Your task to perform on an android device: create a new album in the google photos Image 0: 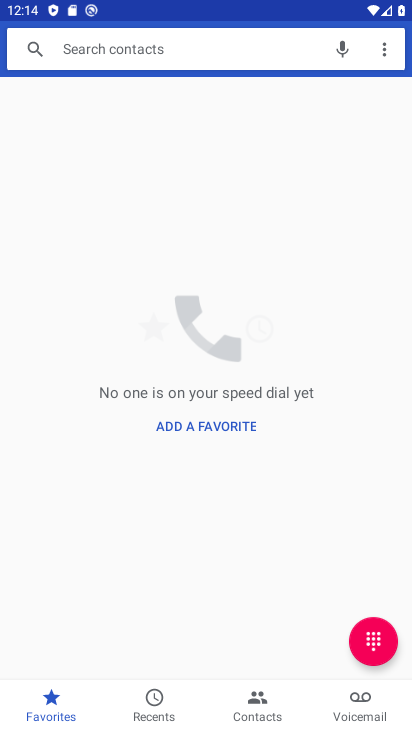
Step 0: press home button
Your task to perform on an android device: create a new album in the google photos Image 1: 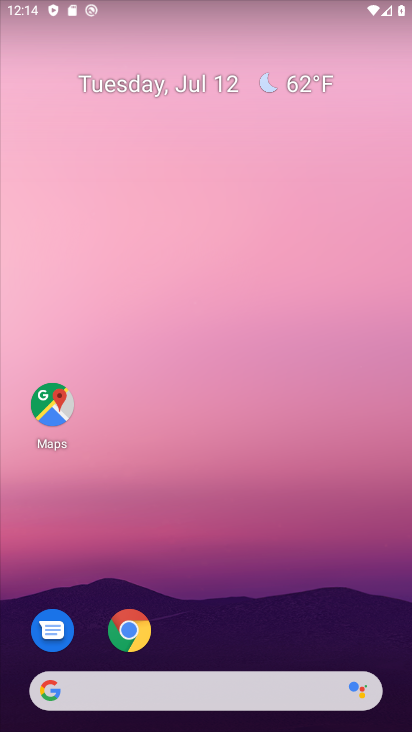
Step 1: drag from (281, 580) to (234, 150)
Your task to perform on an android device: create a new album in the google photos Image 2: 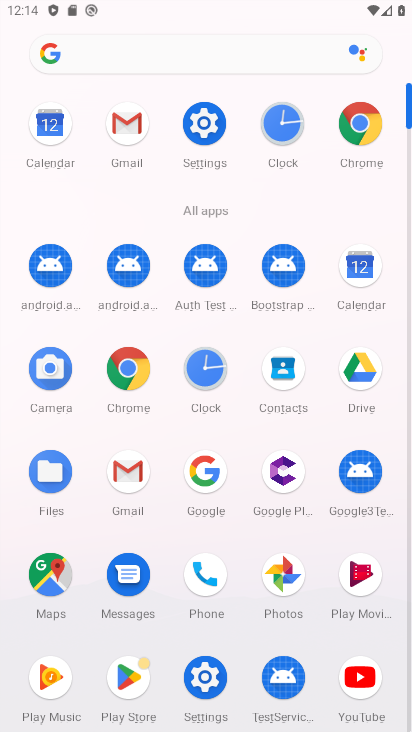
Step 2: click (275, 581)
Your task to perform on an android device: create a new album in the google photos Image 3: 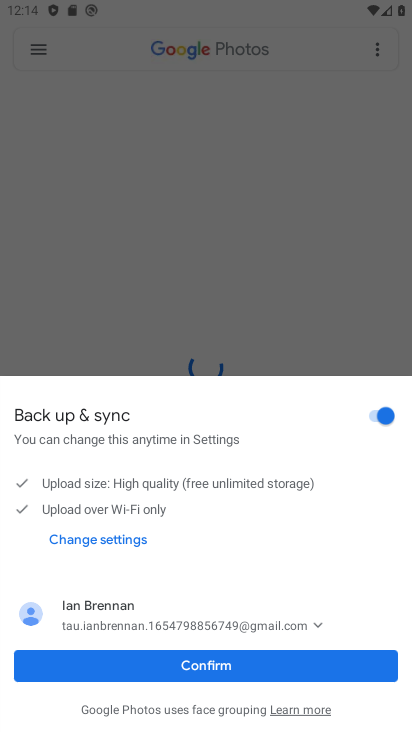
Step 3: click (169, 670)
Your task to perform on an android device: create a new album in the google photos Image 4: 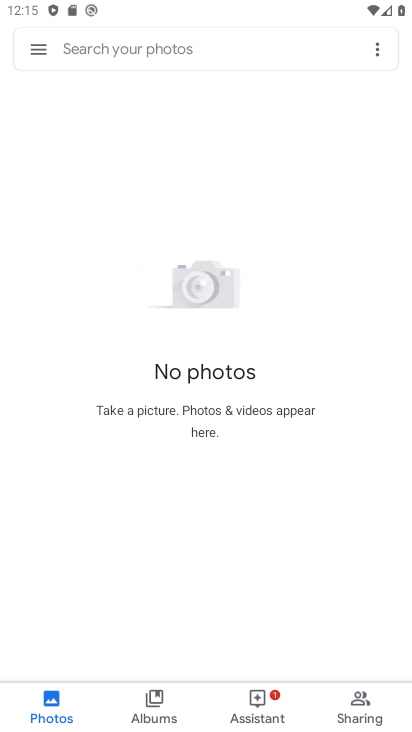
Step 4: click (381, 50)
Your task to perform on an android device: create a new album in the google photos Image 5: 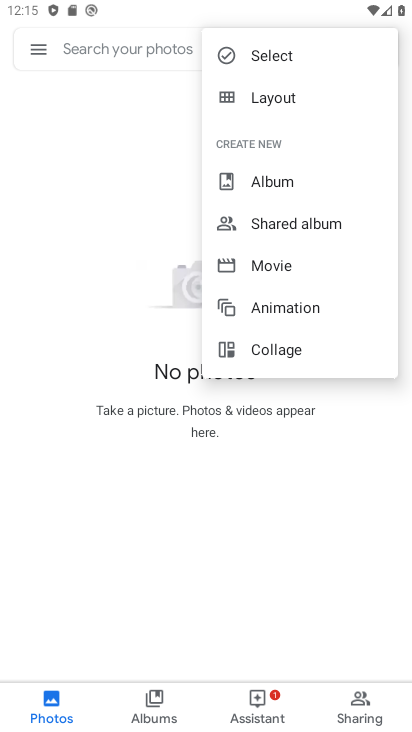
Step 5: click (260, 170)
Your task to perform on an android device: create a new album in the google photos Image 6: 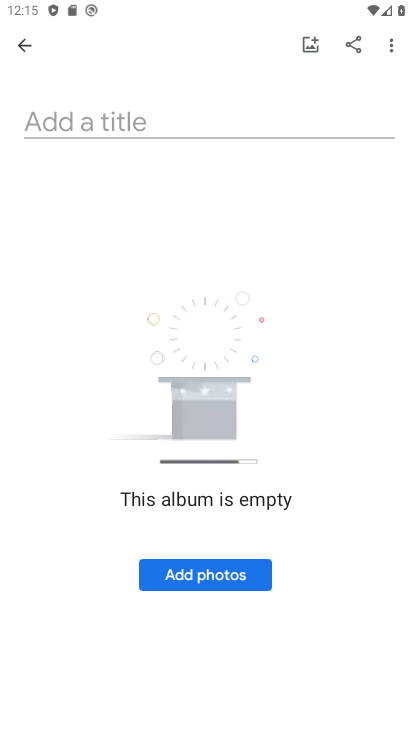
Step 6: click (124, 117)
Your task to perform on an android device: create a new album in the google photos Image 7: 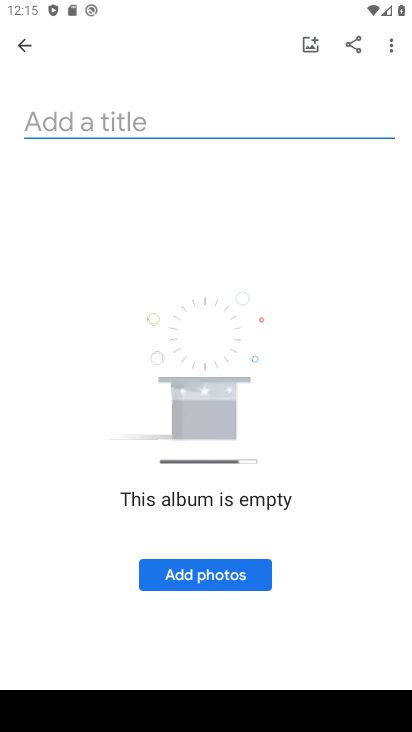
Step 7: type "uytdsfdg"
Your task to perform on an android device: create a new album in the google photos Image 8: 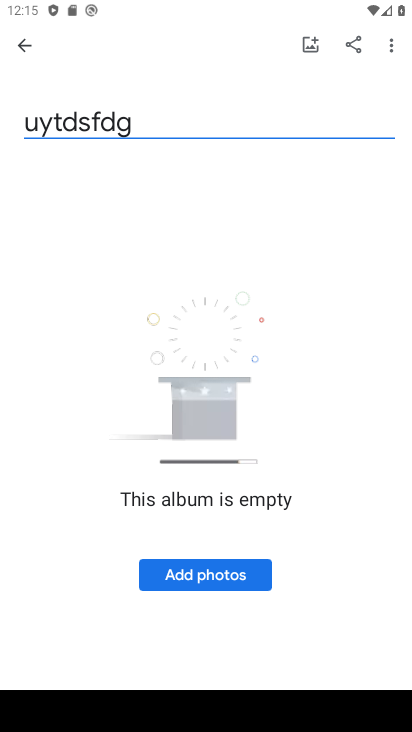
Step 8: click (311, 38)
Your task to perform on an android device: create a new album in the google photos Image 9: 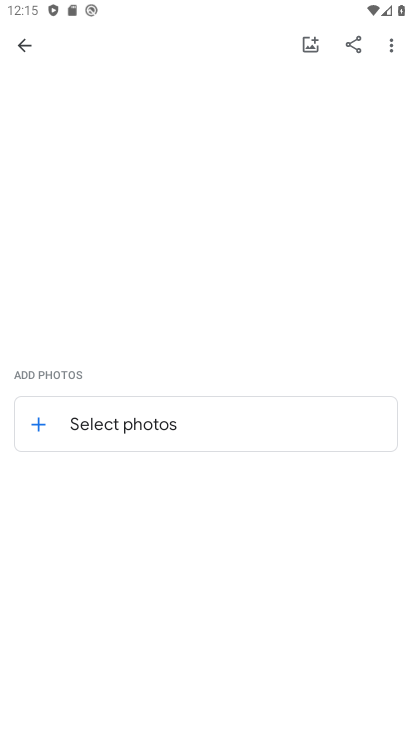
Step 9: task complete